Your task to perform on an android device: Open Chrome and go to settings Image 0: 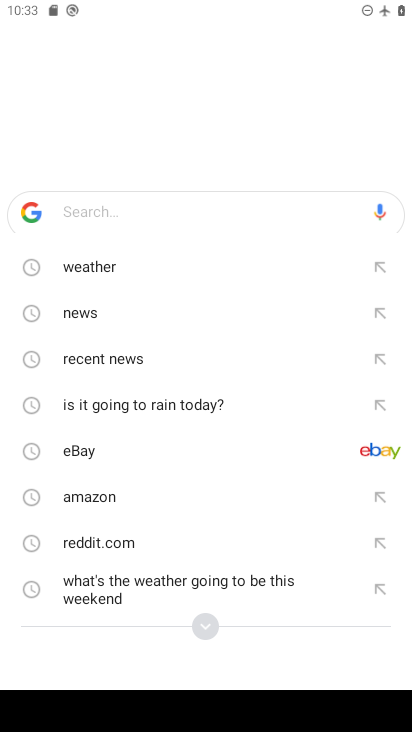
Step 0: press home button
Your task to perform on an android device: Open Chrome and go to settings Image 1: 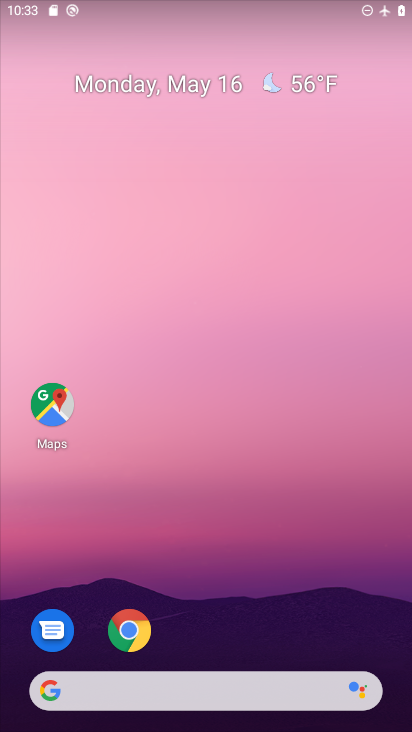
Step 1: click (137, 637)
Your task to perform on an android device: Open Chrome and go to settings Image 2: 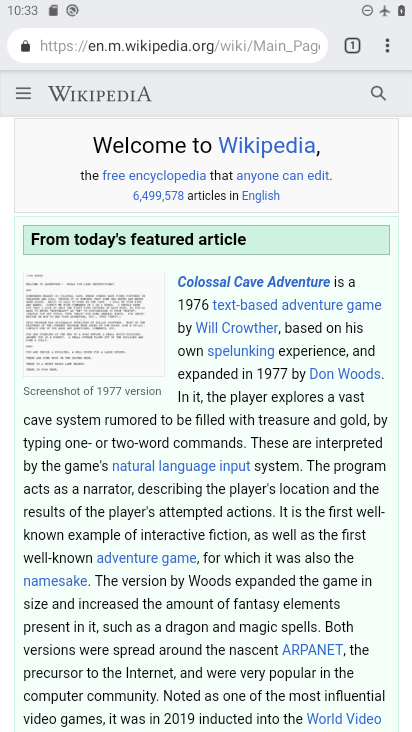
Step 2: click (384, 51)
Your task to perform on an android device: Open Chrome and go to settings Image 3: 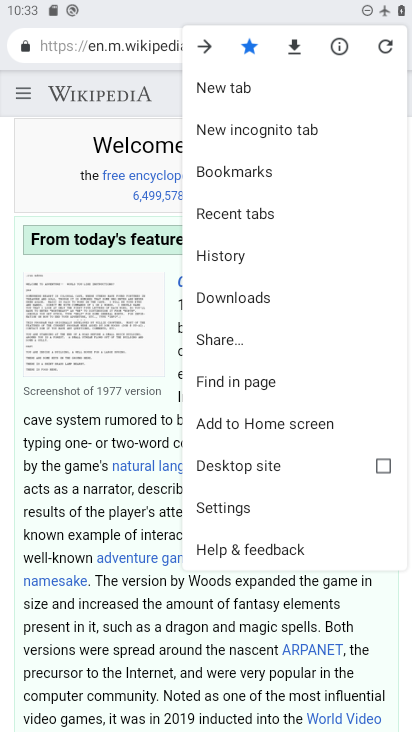
Step 3: click (263, 507)
Your task to perform on an android device: Open Chrome and go to settings Image 4: 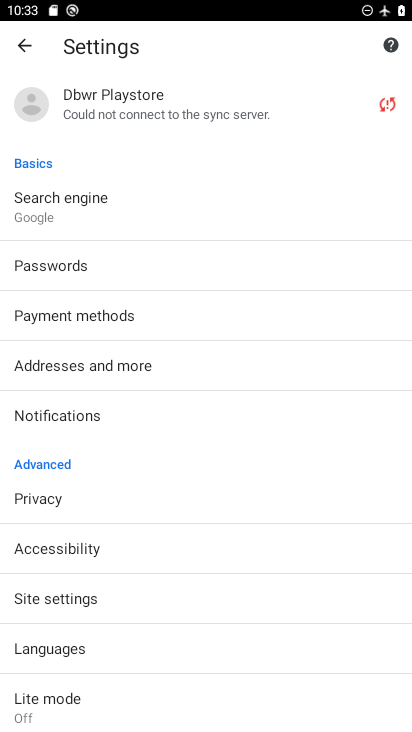
Step 4: task complete